Your task to perform on an android device: create a new album in the google photos Image 0: 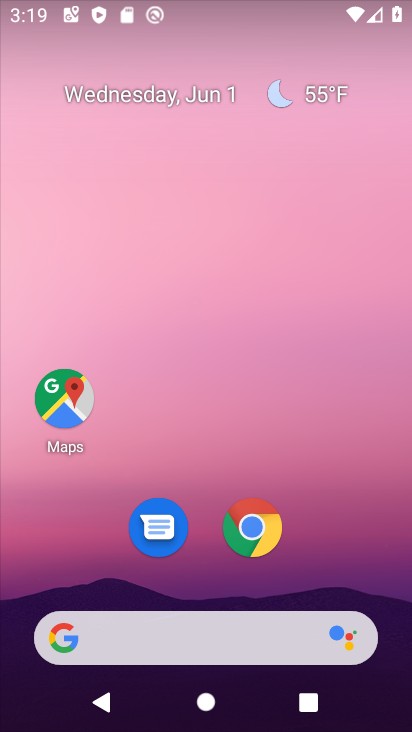
Step 0: press home button
Your task to perform on an android device: create a new album in the google photos Image 1: 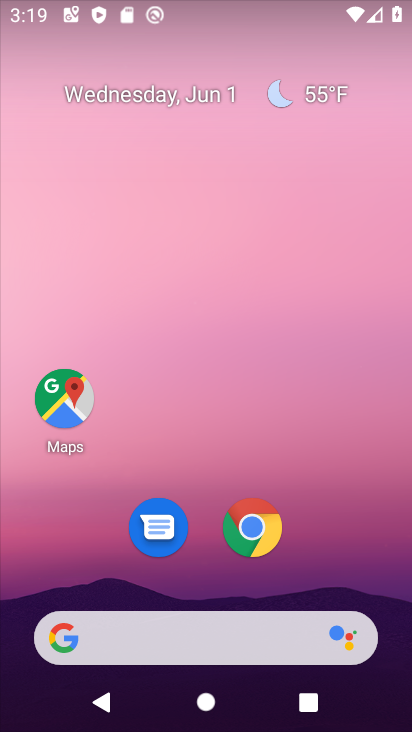
Step 1: drag from (392, 682) to (280, 147)
Your task to perform on an android device: create a new album in the google photos Image 2: 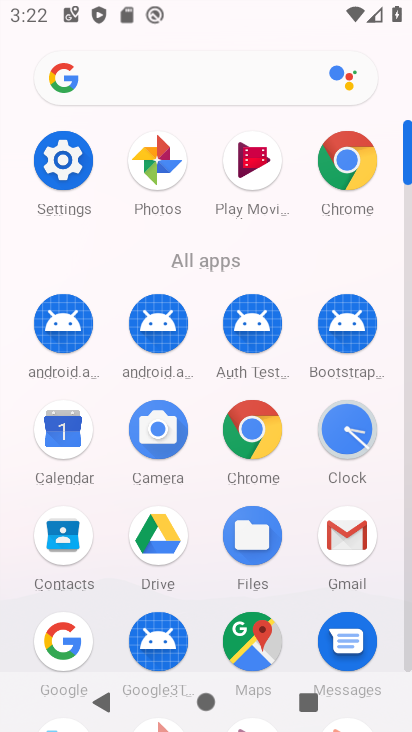
Step 2: click (163, 149)
Your task to perform on an android device: create a new album in the google photos Image 3: 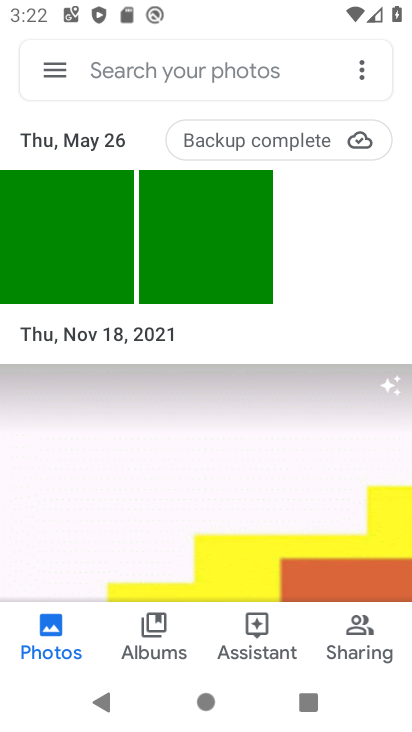
Step 3: click (159, 235)
Your task to perform on an android device: create a new album in the google photos Image 4: 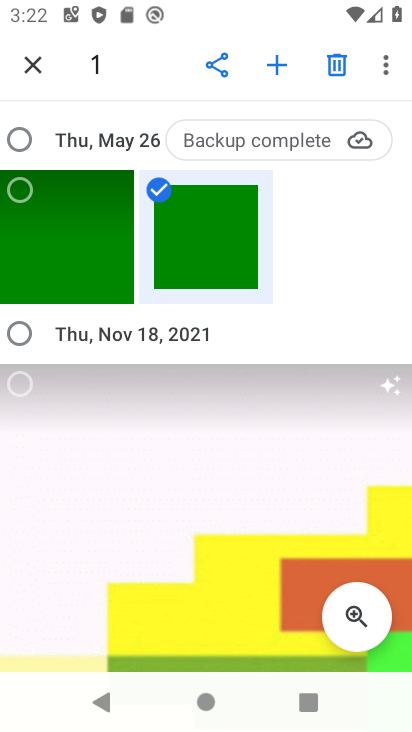
Step 4: click (105, 248)
Your task to perform on an android device: create a new album in the google photos Image 5: 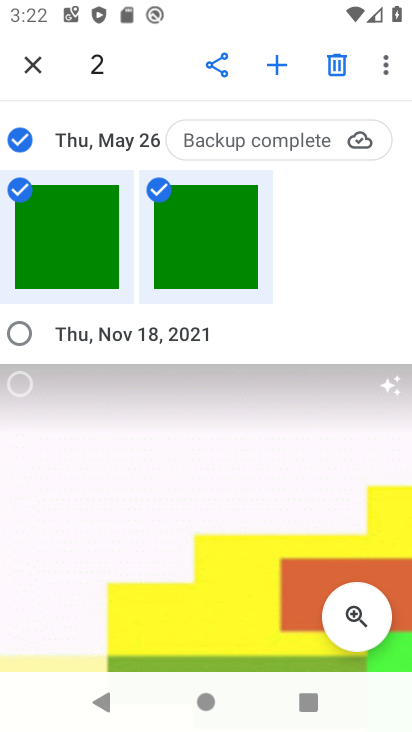
Step 5: click (264, 73)
Your task to perform on an android device: create a new album in the google photos Image 6: 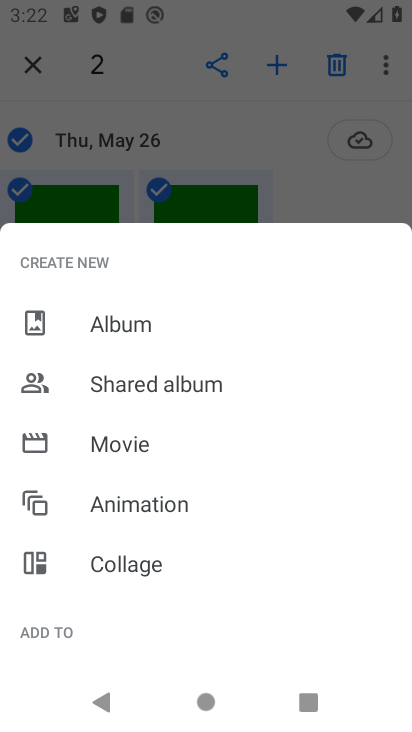
Step 6: click (122, 309)
Your task to perform on an android device: create a new album in the google photos Image 7: 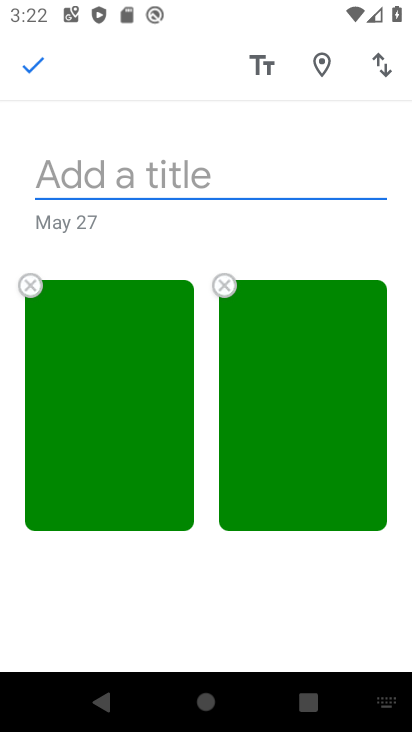
Step 7: type "ggg"
Your task to perform on an android device: create a new album in the google photos Image 8: 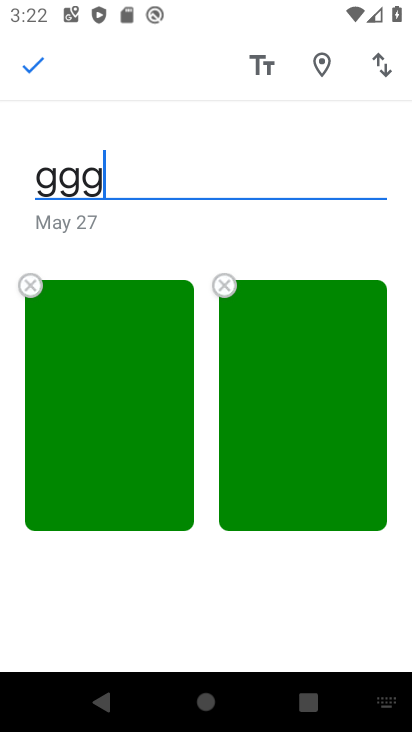
Step 8: click (23, 72)
Your task to perform on an android device: create a new album in the google photos Image 9: 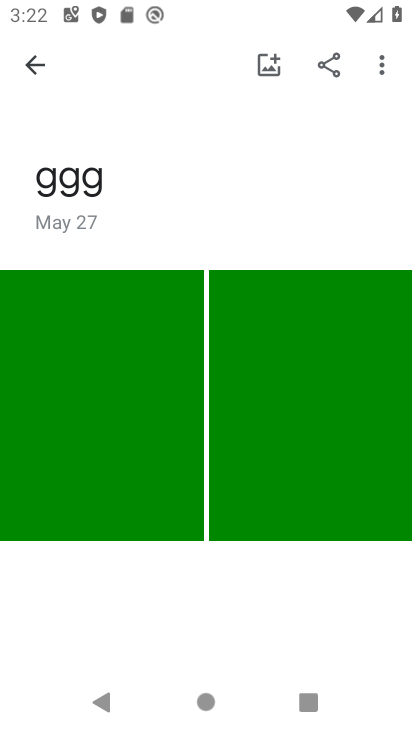
Step 9: task complete